Your task to perform on an android device: search for starred emails in the gmail app Image 0: 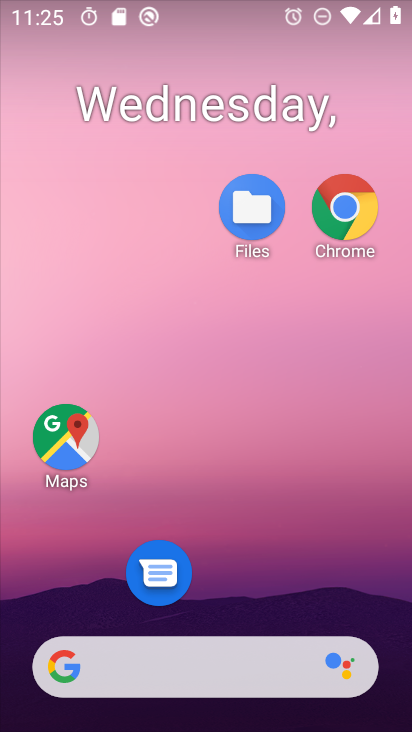
Step 0: drag from (293, 664) to (328, 181)
Your task to perform on an android device: search for starred emails in the gmail app Image 1: 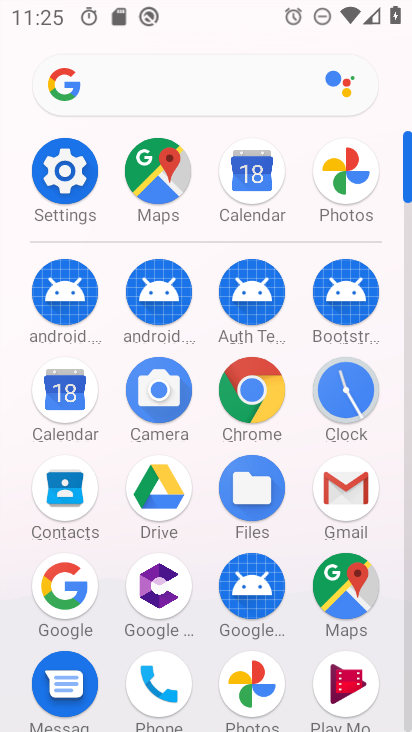
Step 1: click (348, 514)
Your task to perform on an android device: search for starred emails in the gmail app Image 2: 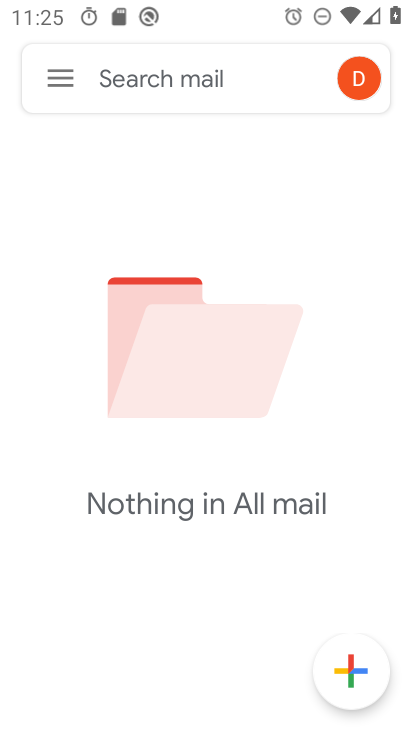
Step 2: click (43, 95)
Your task to perform on an android device: search for starred emails in the gmail app Image 3: 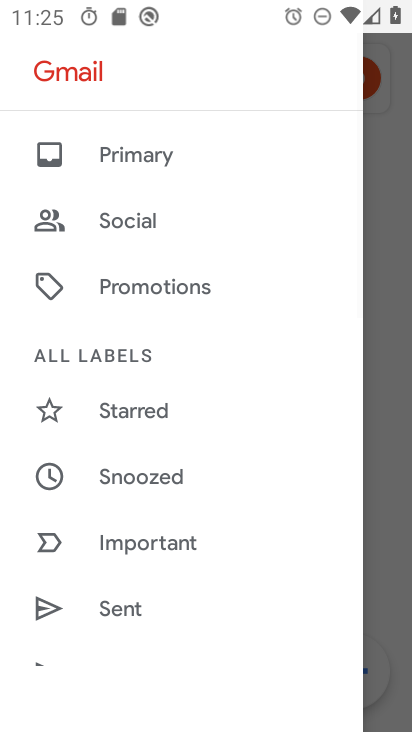
Step 3: click (137, 418)
Your task to perform on an android device: search for starred emails in the gmail app Image 4: 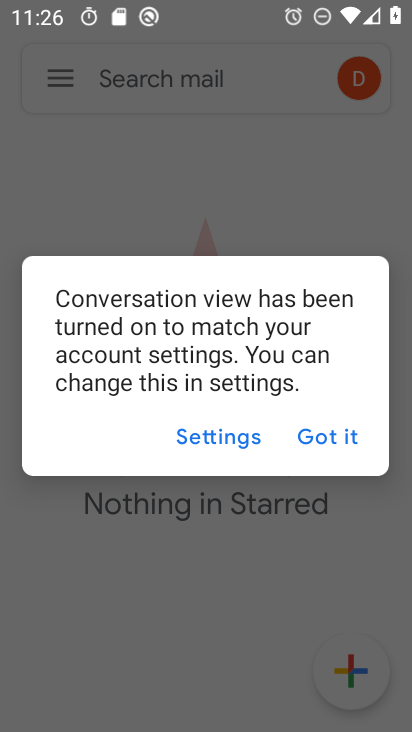
Step 4: click (318, 450)
Your task to perform on an android device: search for starred emails in the gmail app Image 5: 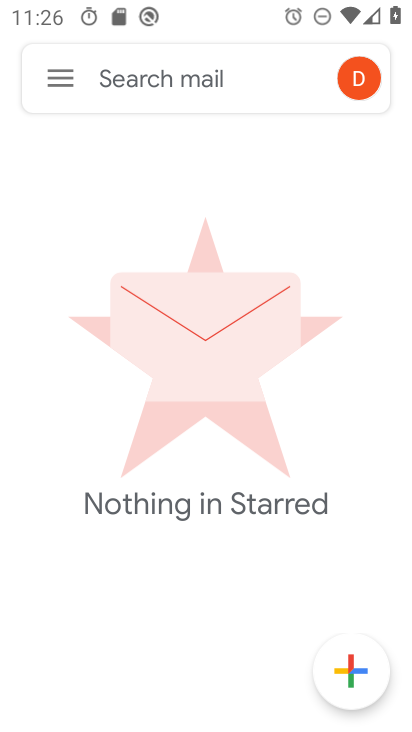
Step 5: click (61, 78)
Your task to perform on an android device: search for starred emails in the gmail app Image 6: 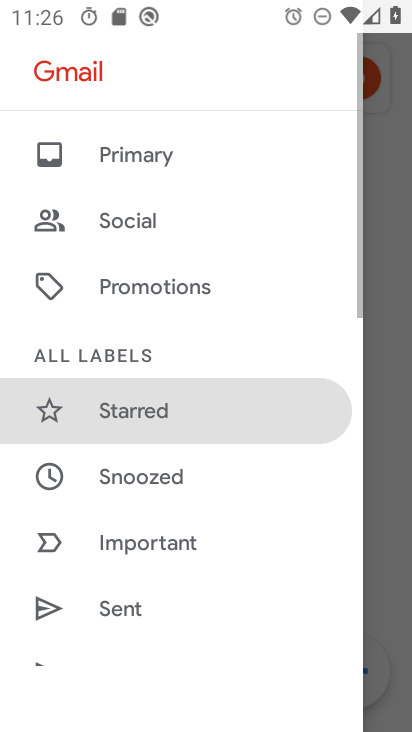
Step 6: task complete